Your task to perform on an android device: Open the settings Image 0: 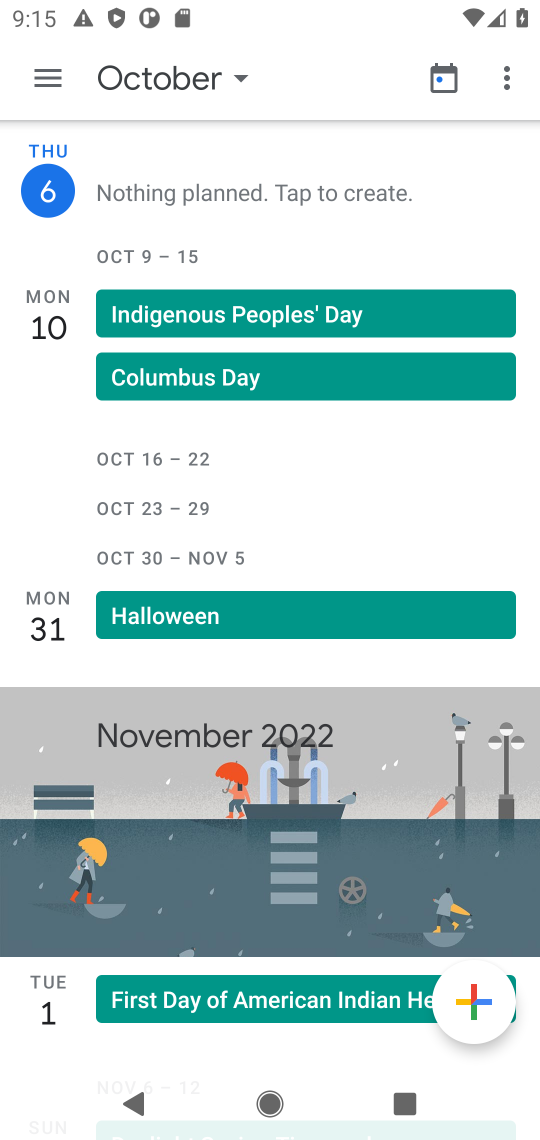
Step 0: press home button
Your task to perform on an android device: Open the settings Image 1: 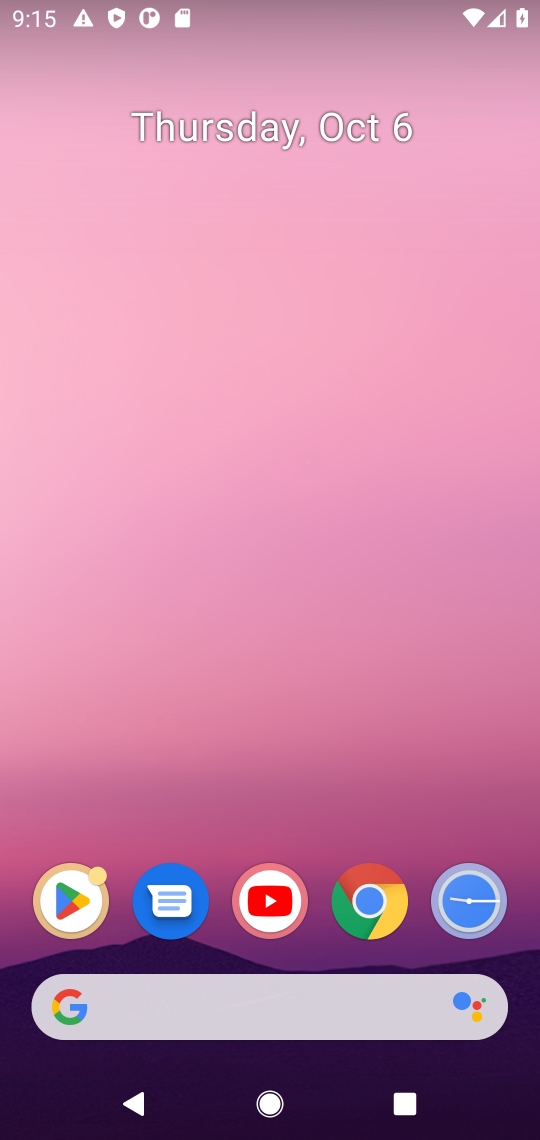
Step 1: drag from (81, 1006) to (63, 0)
Your task to perform on an android device: Open the settings Image 2: 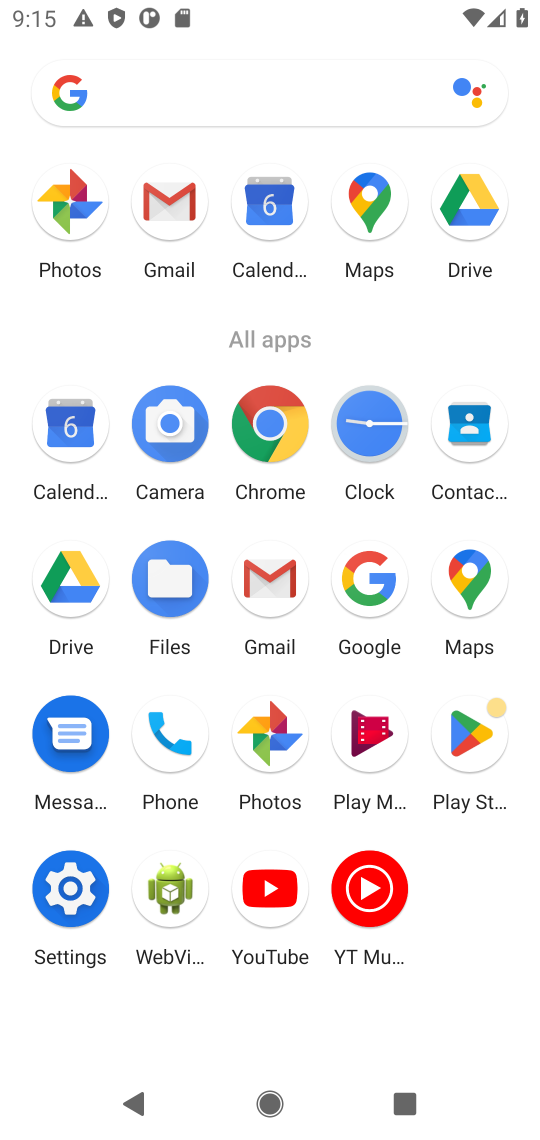
Step 2: click (43, 899)
Your task to perform on an android device: Open the settings Image 3: 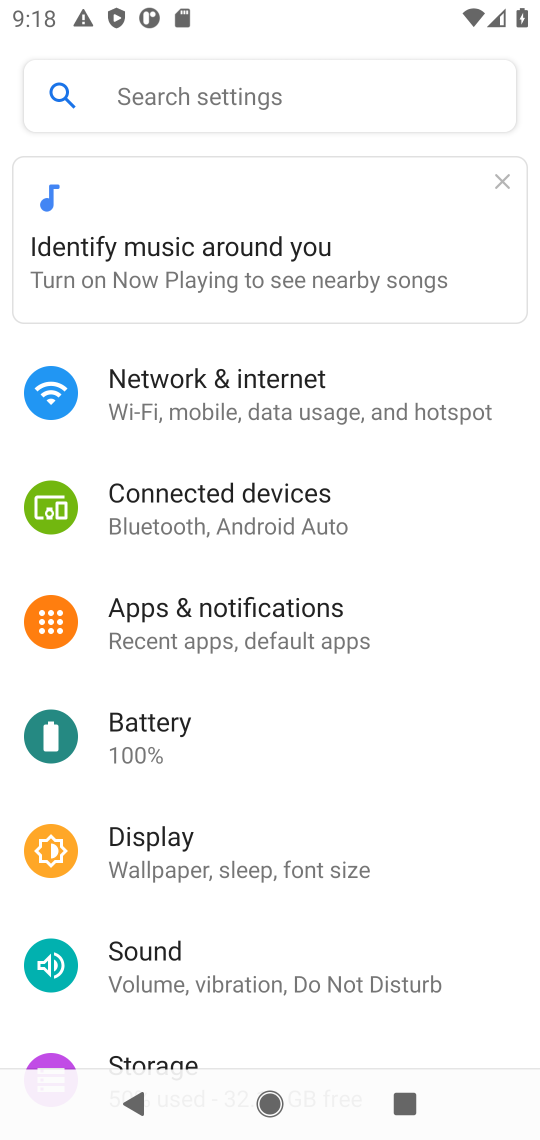
Step 3: task complete